Your task to perform on an android device: Set the phone to "Do not disturb". Image 0: 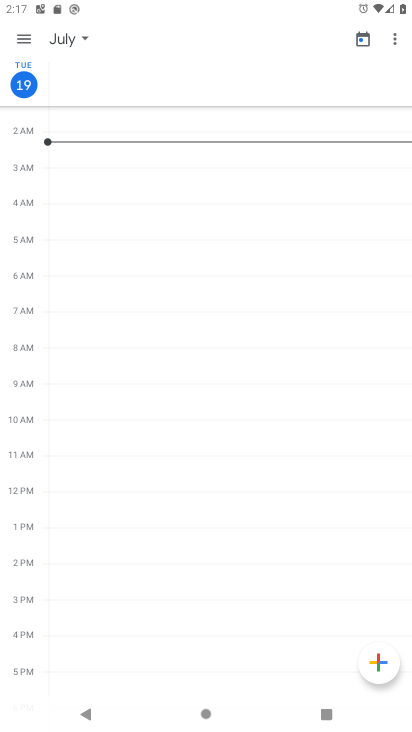
Step 0: press home button
Your task to perform on an android device: Set the phone to "Do not disturb". Image 1: 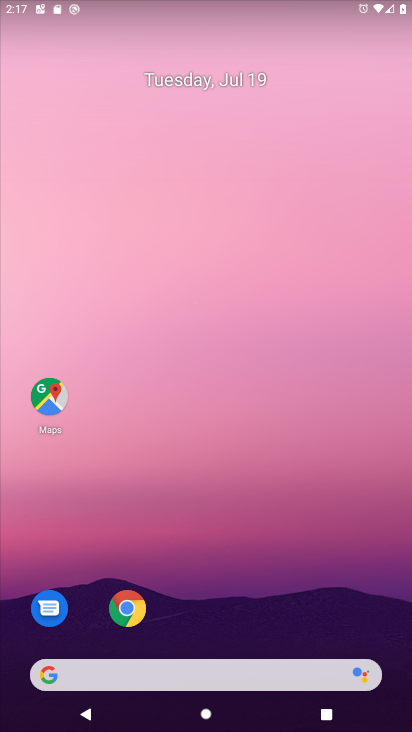
Step 1: drag from (242, 589) to (304, 126)
Your task to perform on an android device: Set the phone to "Do not disturb". Image 2: 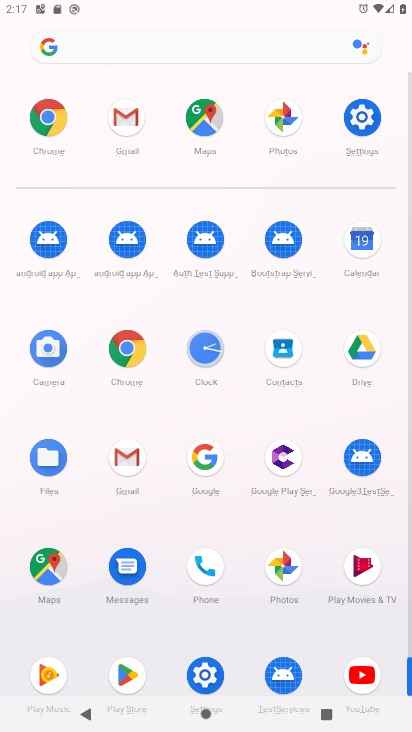
Step 2: click (203, 684)
Your task to perform on an android device: Set the phone to "Do not disturb". Image 3: 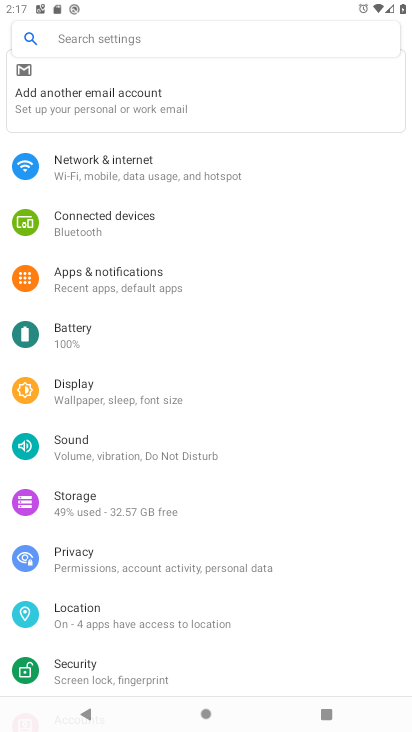
Step 3: click (187, 446)
Your task to perform on an android device: Set the phone to "Do not disturb". Image 4: 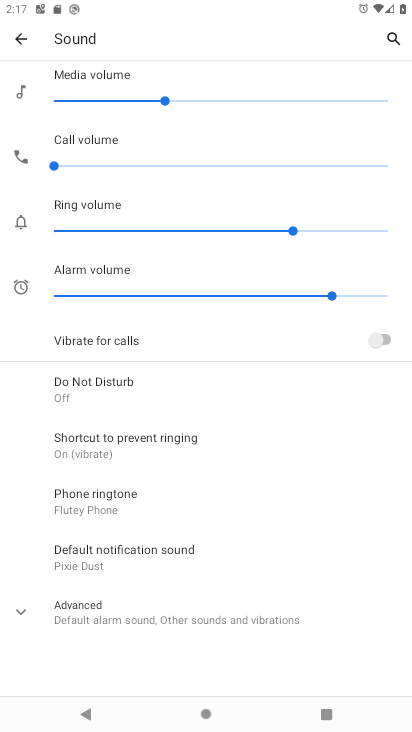
Step 4: click (127, 402)
Your task to perform on an android device: Set the phone to "Do not disturb". Image 5: 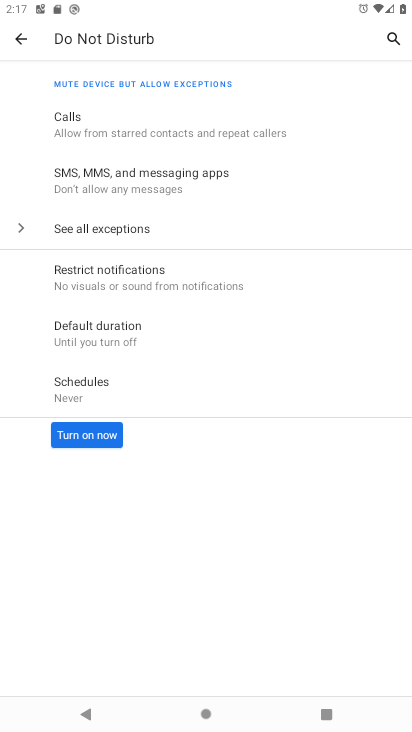
Step 5: click (105, 443)
Your task to perform on an android device: Set the phone to "Do not disturb". Image 6: 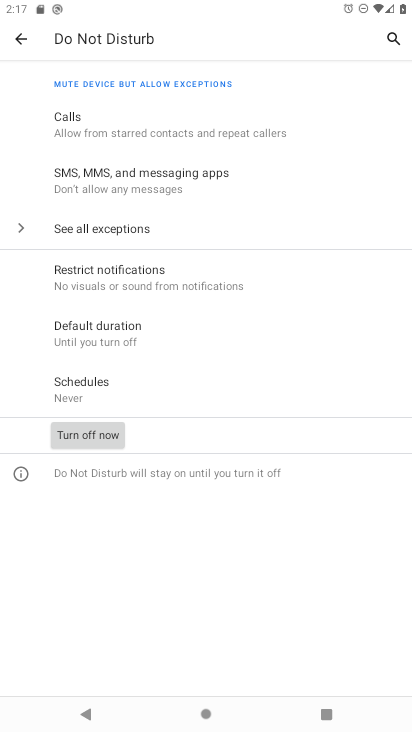
Step 6: task complete